Your task to perform on an android device: Open accessibility settings Image 0: 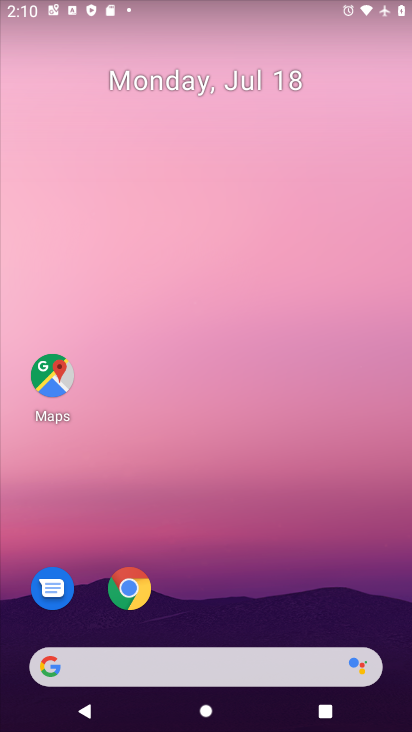
Step 0: drag from (275, 666) to (275, 301)
Your task to perform on an android device: Open accessibility settings Image 1: 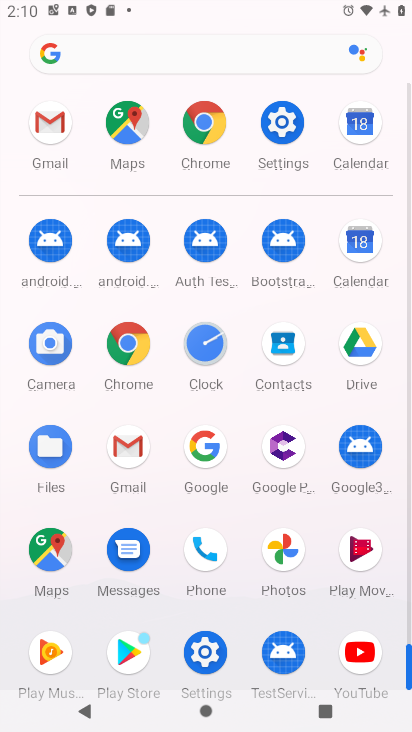
Step 1: click (292, 148)
Your task to perform on an android device: Open accessibility settings Image 2: 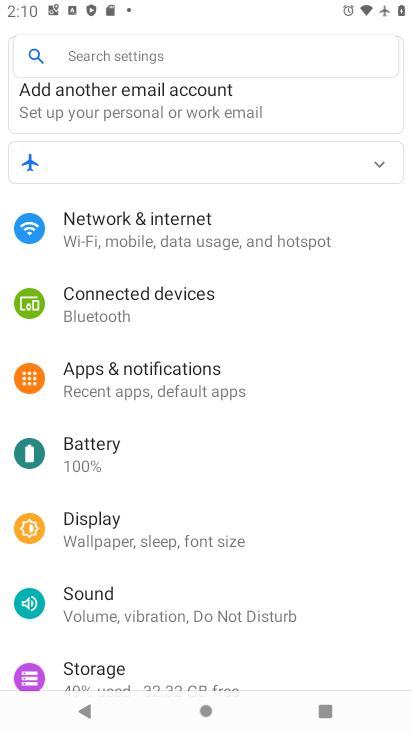
Step 2: drag from (250, 475) to (247, 304)
Your task to perform on an android device: Open accessibility settings Image 3: 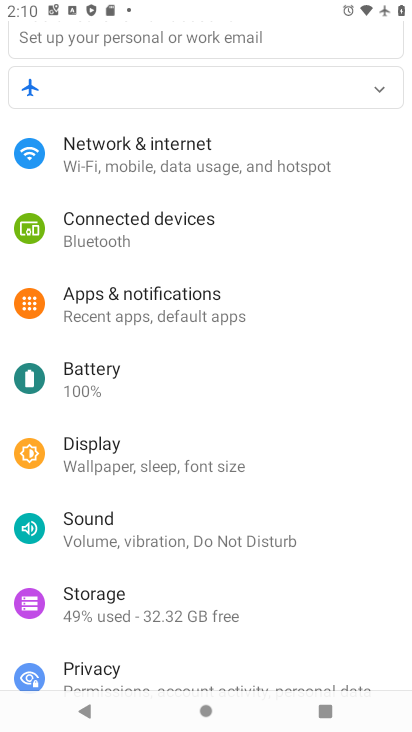
Step 3: drag from (214, 520) to (168, 355)
Your task to perform on an android device: Open accessibility settings Image 4: 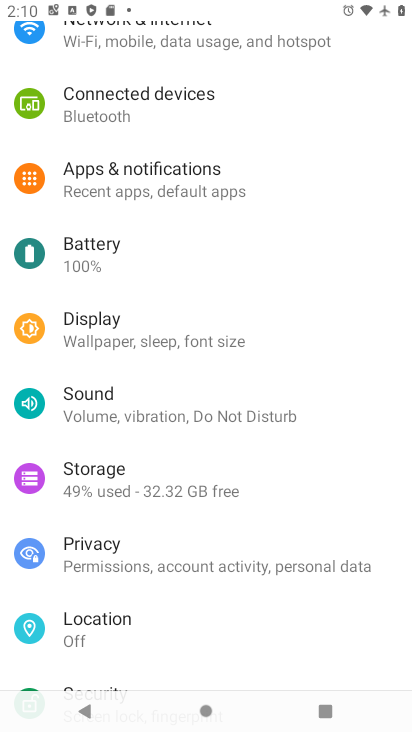
Step 4: drag from (197, 573) to (167, 373)
Your task to perform on an android device: Open accessibility settings Image 5: 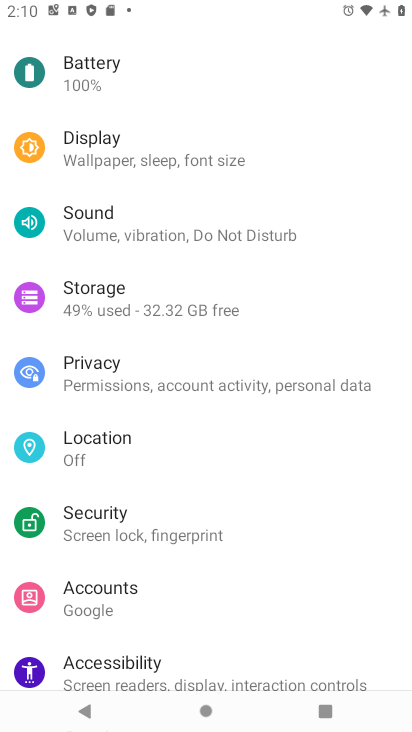
Step 5: drag from (215, 526) to (210, 394)
Your task to perform on an android device: Open accessibility settings Image 6: 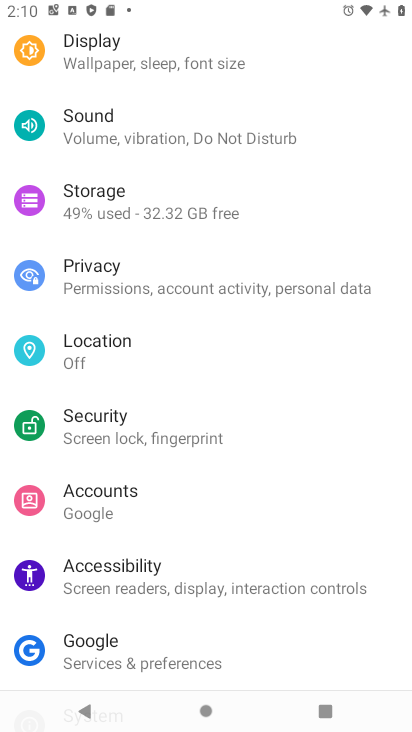
Step 6: click (196, 581)
Your task to perform on an android device: Open accessibility settings Image 7: 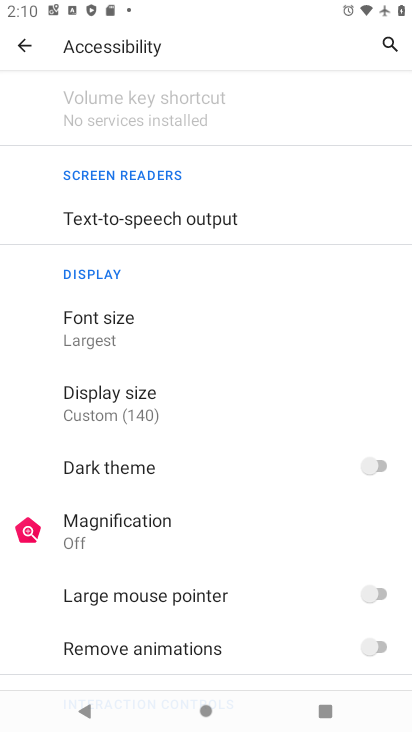
Step 7: task complete